Your task to perform on an android device: Search for sushi restaurants on Maps Image 0: 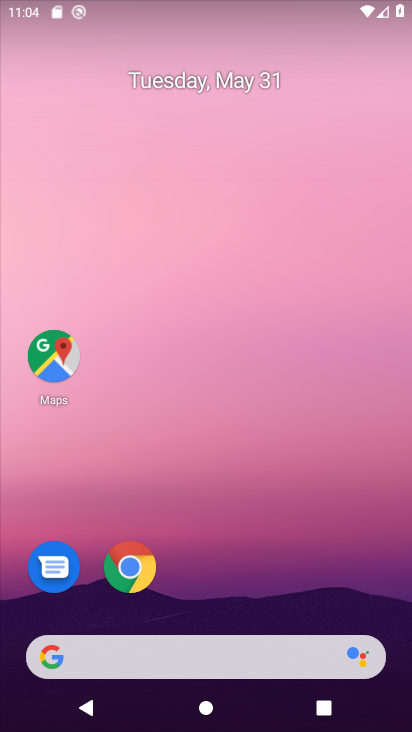
Step 0: click (58, 353)
Your task to perform on an android device: Search for sushi restaurants on Maps Image 1: 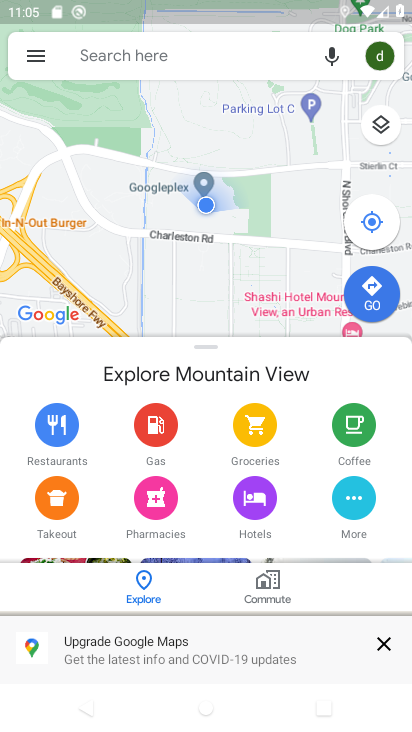
Step 1: click (98, 59)
Your task to perform on an android device: Search for sushi restaurants on Maps Image 2: 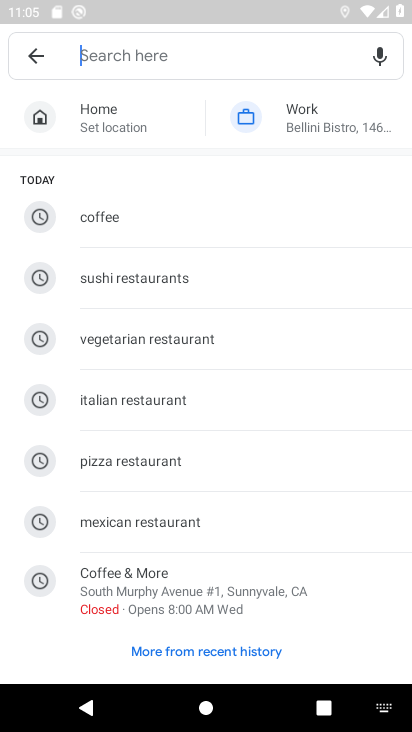
Step 2: click (167, 286)
Your task to perform on an android device: Search for sushi restaurants on Maps Image 3: 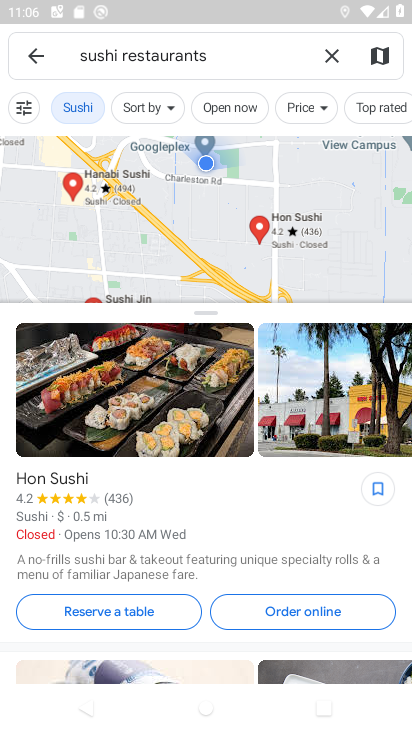
Step 3: task complete